Your task to perform on an android device: Open Google Maps and go to "Timeline" Image 0: 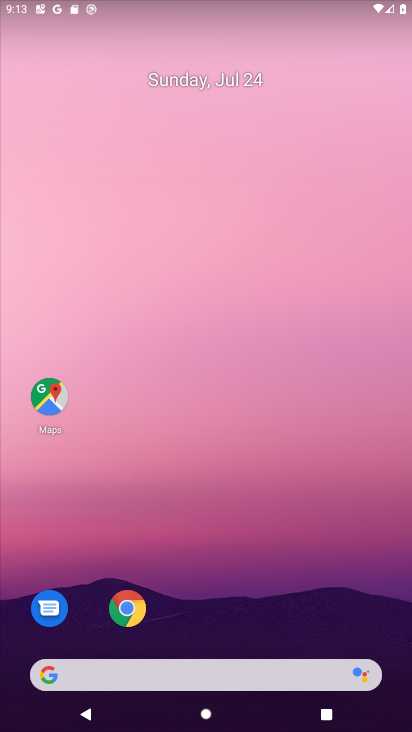
Step 0: click (57, 389)
Your task to perform on an android device: Open Google Maps and go to "Timeline" Image 1: 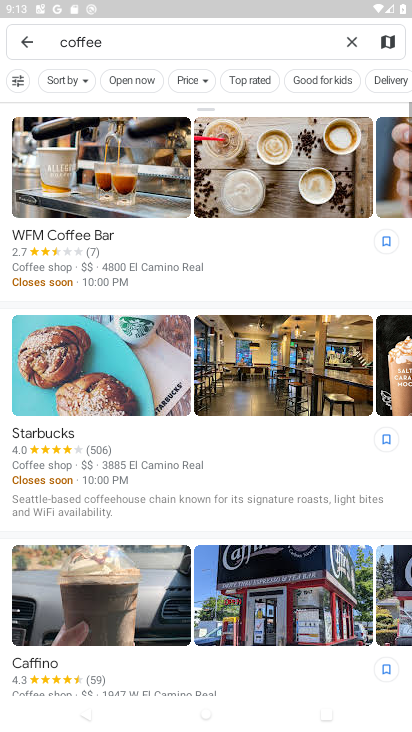
Step 1: click (31, 53)
Your task to perform on an android device: Open Google Maps and go to "Timeline" Image 2: 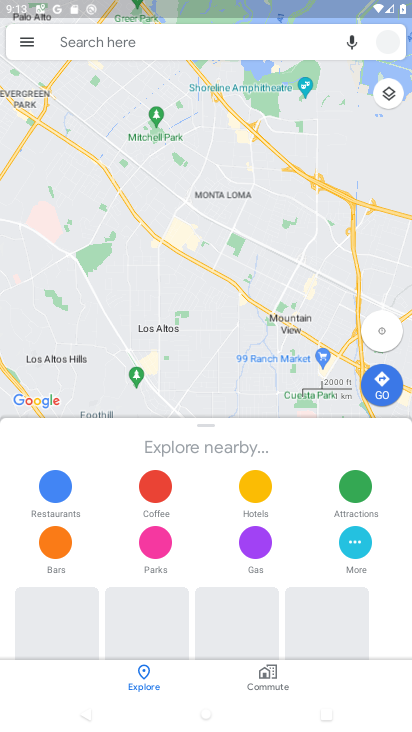
Step 2: click (31, 53)
Your task to perform on an android device: Open Google Maps and go to "Timeline" Image 3: 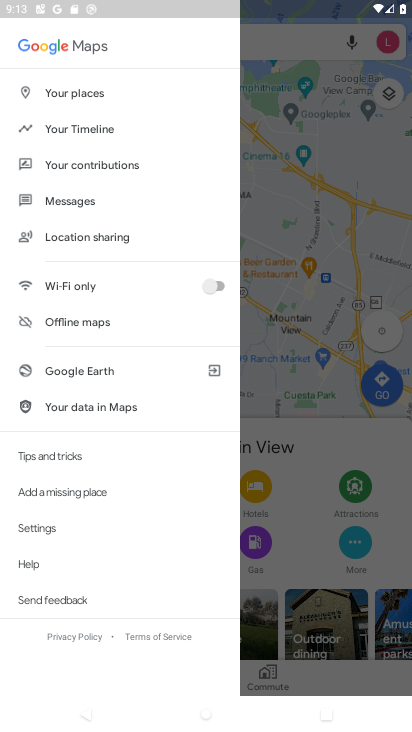
Step 3: click (72, 123)
Your task to perform on an android device: Open Google Maps and go to "Timeline" Image 4: 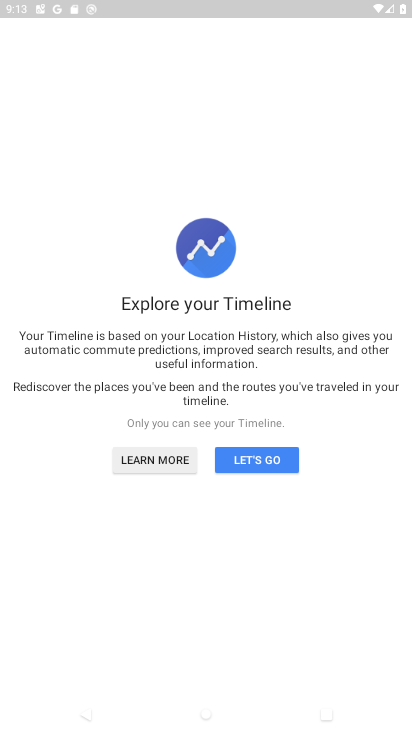
Step 4: task complete